Your task to perform on an android device: search for starred emails in the gmail app Image 0: 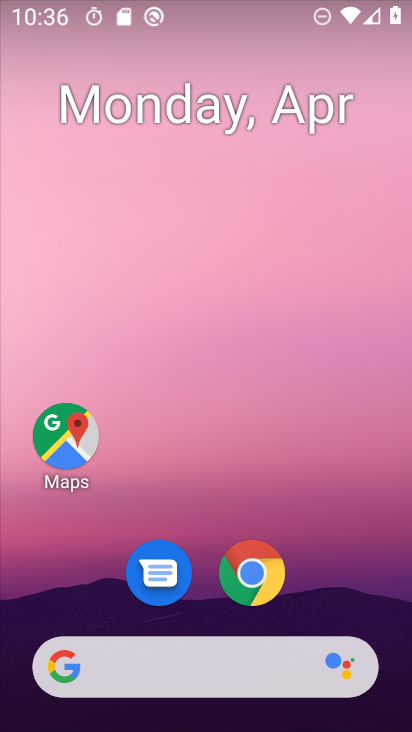
Step 0: drag from (368, 304) to (411, 56)
Your task to perform on an android device: search for starred emails in the gmail app Image 1: 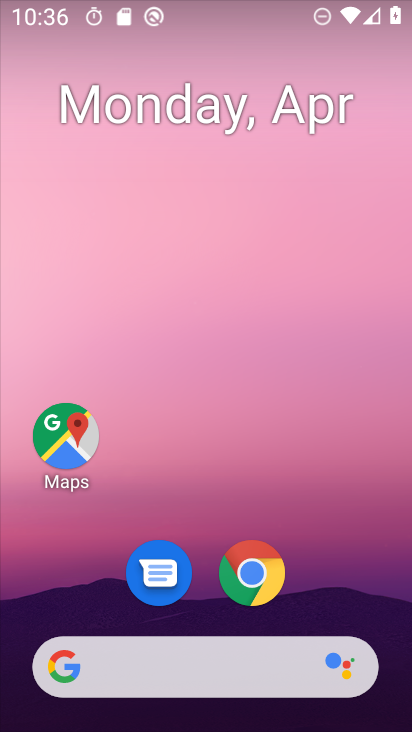
Step 1: drag from (397, 305) to (395, 15)
Your task to perform on an android device: search for starred emails in the gmail app Image 2: 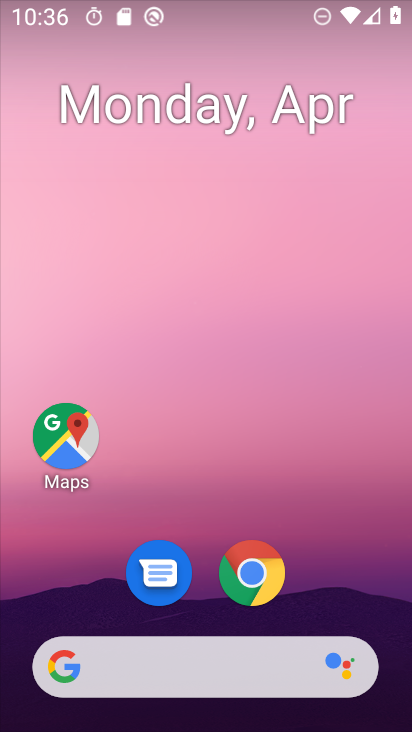
Step 2: drag from (329, 499) to (396, 1)
Your task to perform on an android device: search for starred emails in the gmail app Image 3: 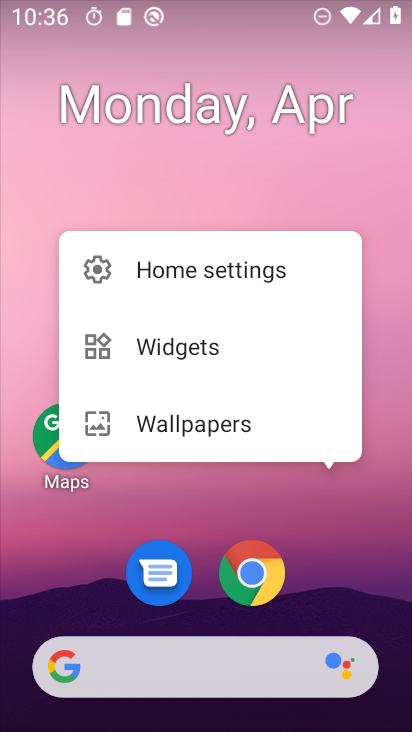
Step 3: click (312, 590)
Your task to perform on an android device: search for starred emails in the gmail app Image 4: 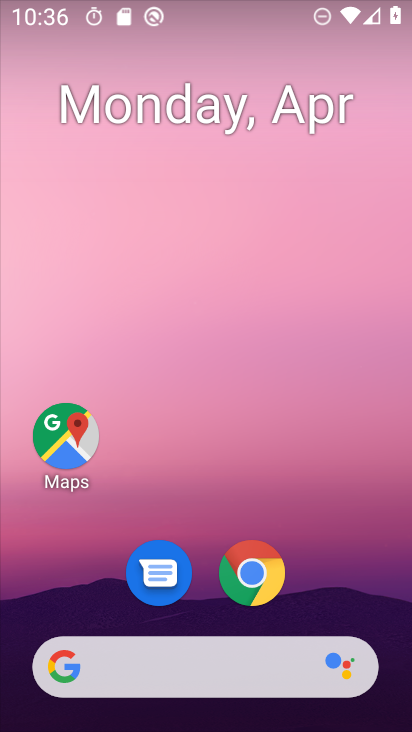
Step 4: drag from (329, 597) to (336, 20)
Your task to perform on an android device: search for starred emails in the gmail app Image 5: 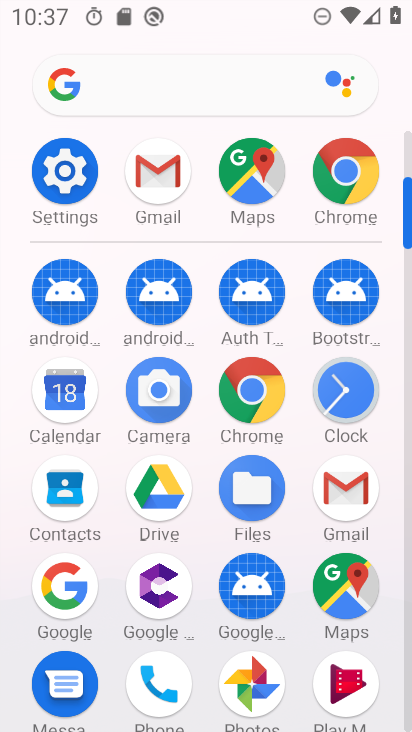
Step 5: click (156, 190)
Your task to perform on an android device: search for starred emails in the gmail app Image 6: 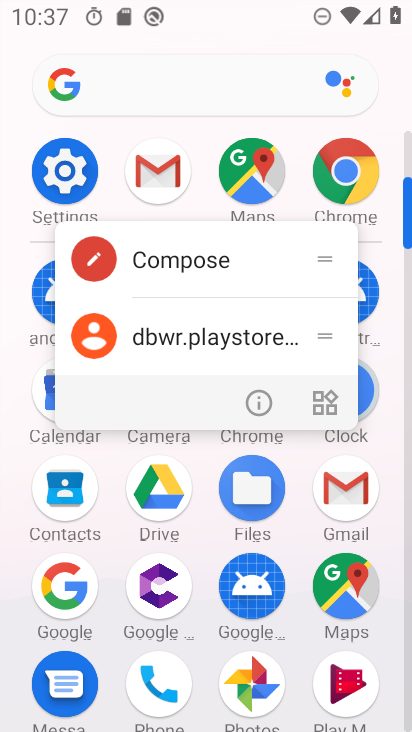
Step 6: click (156, 190)
Your task to perform on an android device: search for starred emails in the gmail app Image 7: 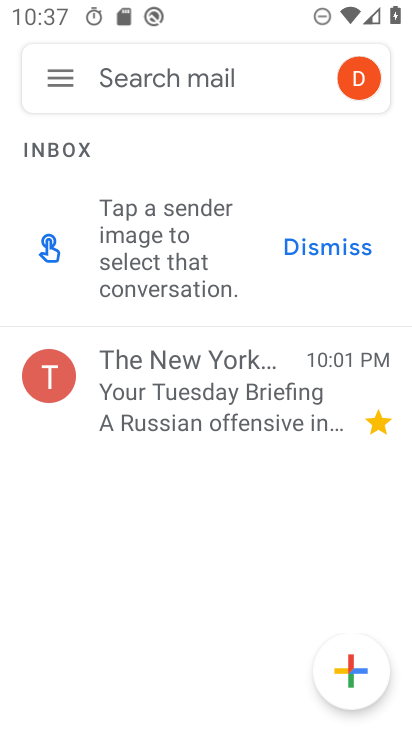
Step 7: click (221, 377)
Your task to perform on an android device: search for starred emails in the gmail app Image 8: 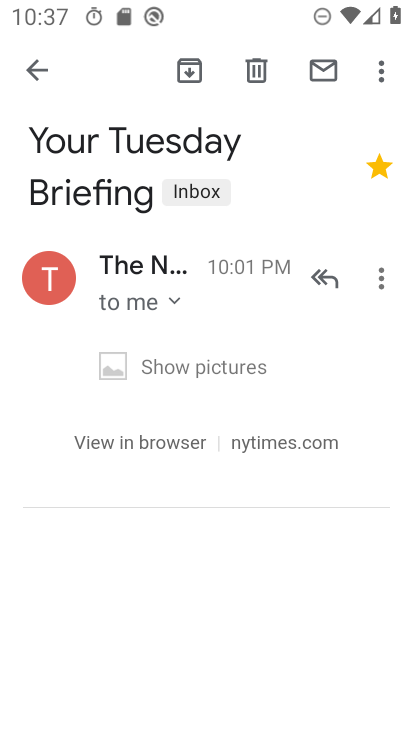
Step 8: task complete